Your task to perform on an android device: turn on data saver in the chrome app Image 0: 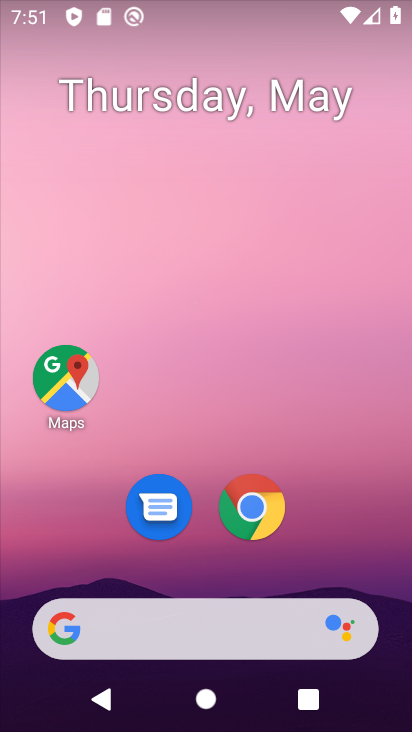
Step 0: click (255, 519)
Your task to perform on an android device: turn on data saver in the chrome app Image 1: 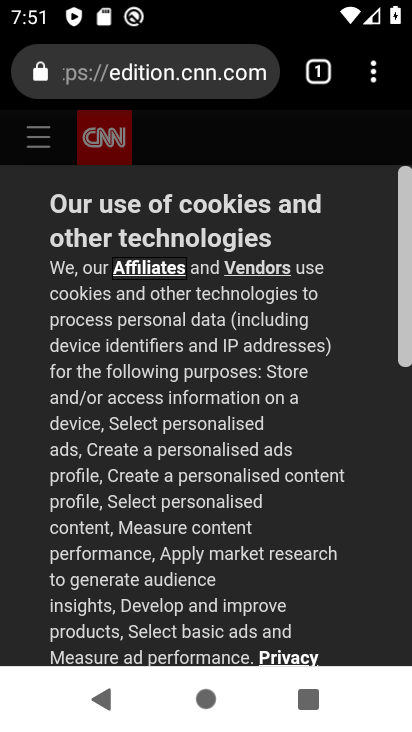
Step 1: click (379, 85)
Your task to perform on an android device: turn on data saver in the chrome app Image 2: 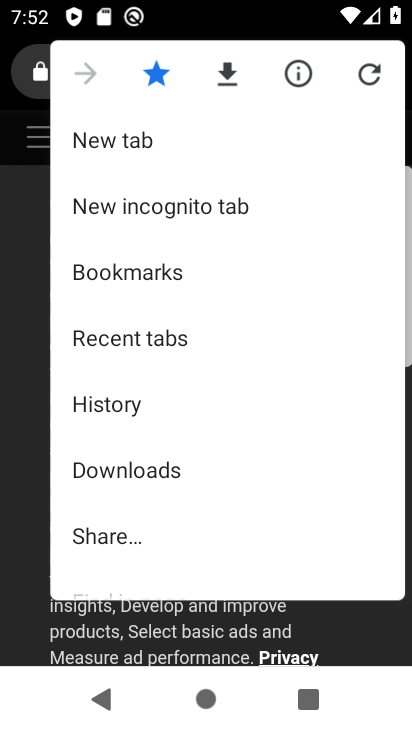
Step 2: drag from (197, 520) to (186, 146)
Your task to perform on an android device: turn on data saver in the chrome app Image 3: 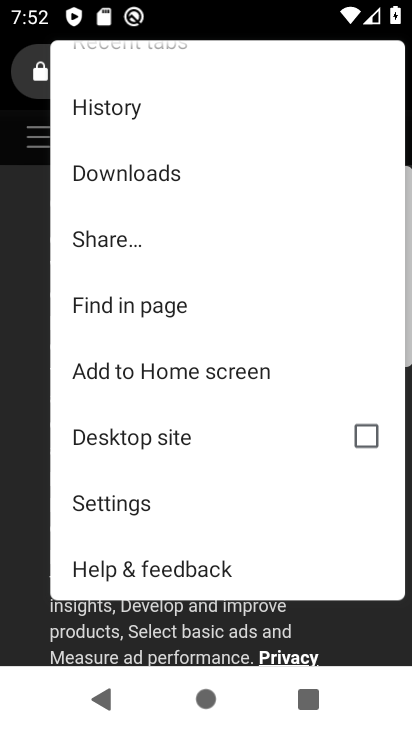
Step 3: click (184, 503)
Your task to perform on an android device: turn on data saver in the chrome app Image 4: 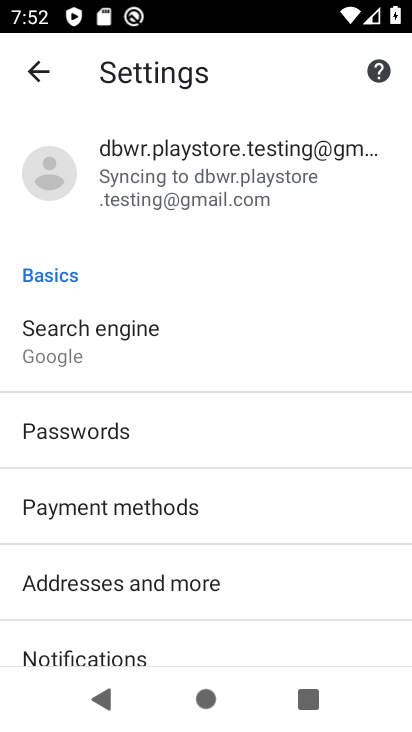
Step 4: drag from (147, 618) to (127, 300)
Your task to perform on an android device: turn on data saver in the chrome app Image 5: 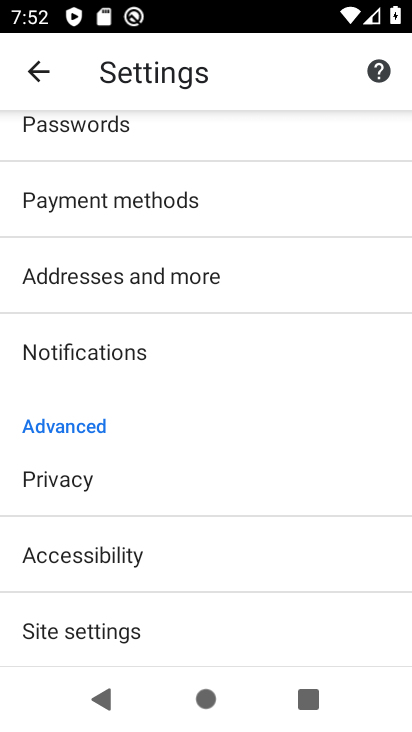
Step 5: drag from (118, 509) to (98, 232)
Your task to perform on an android device: turn on data saver in the chrome app Image 6: 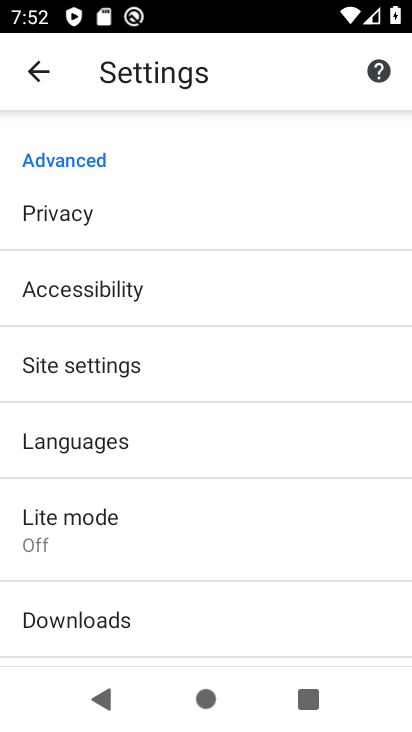
Step 6: drag from (106, 386) to (80, 248)
Your task to perform on an android device: turn on data saver in the chrome app Image 7: 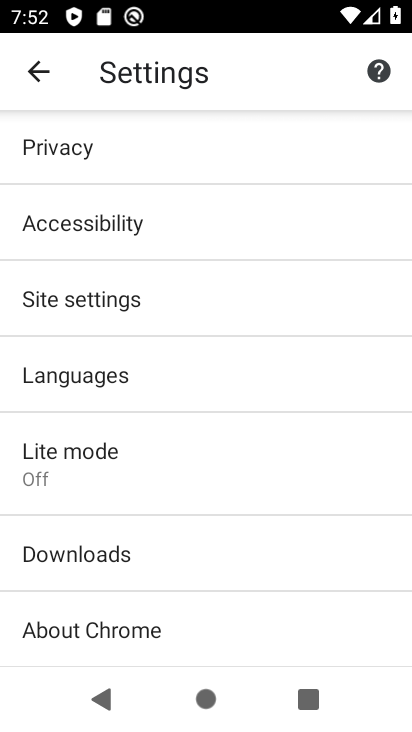
Step 7: click (133, 454)
Your task to perform on an android device: turn on data saver in the chrome app Image 8: 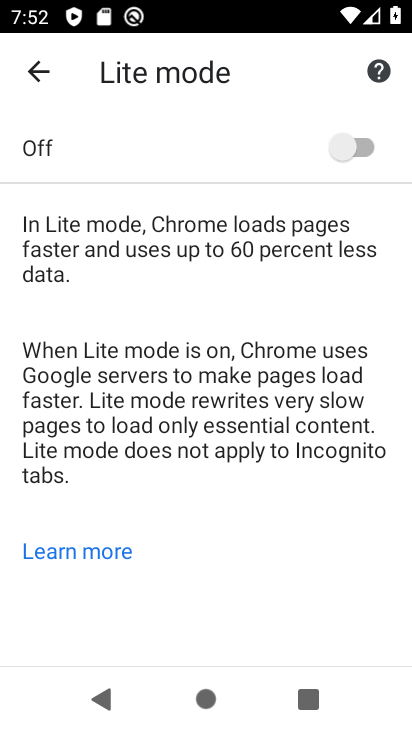
Step 8: click (354, 148)
Your task to perform on an android device: turn on data saver in the chrome app Image 9: 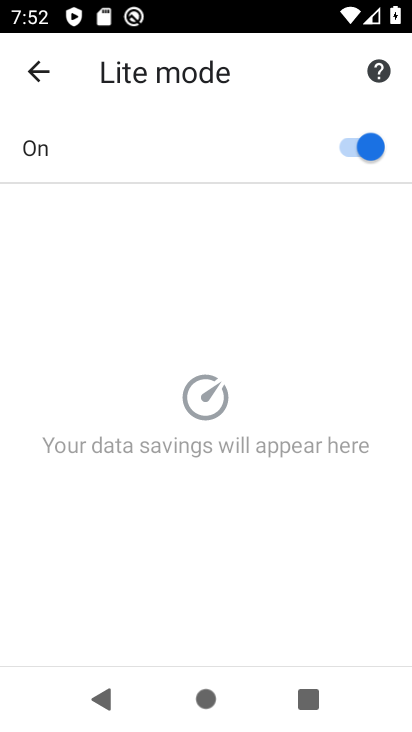
Step 9: task complete